Your task to perform on an android device: turn on location history Image 0: 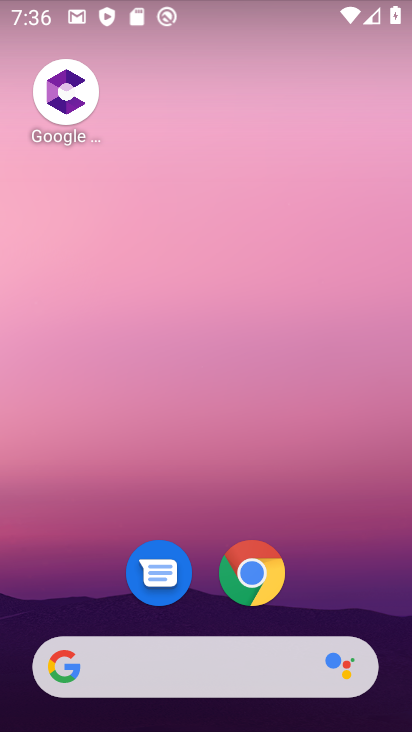
Step 0: drag from (225, 481) to (251, 1)
Your task to perform on an android device: turn on location history Image 1: 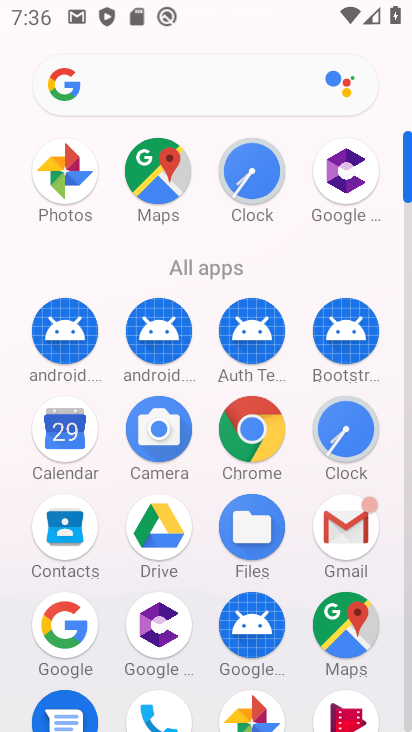
Step 1: drag from (198, 399) to (226, 18)
Your task to perform on an android device: turn on location history Image 2: 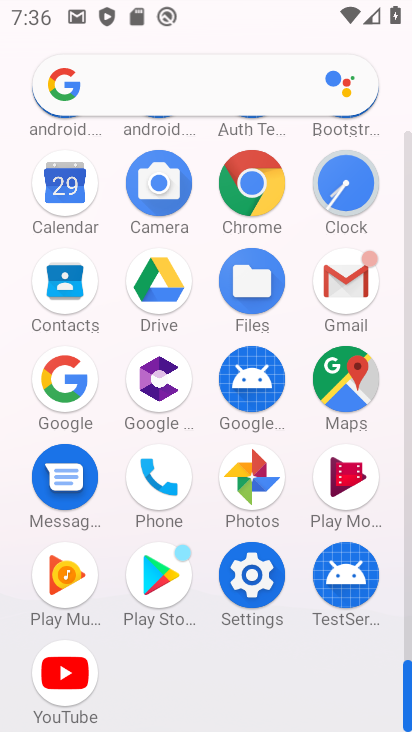
Step 2: click (245, 579)
Your task to perform on an android device: turn on location history Image 3: 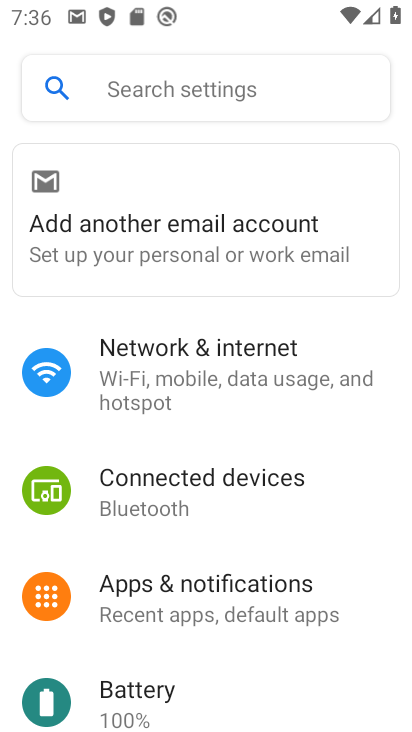
Step 3: drag from (222, 662) to (255, 89)
Your task to perform on an android device: turn on location history Image 4: 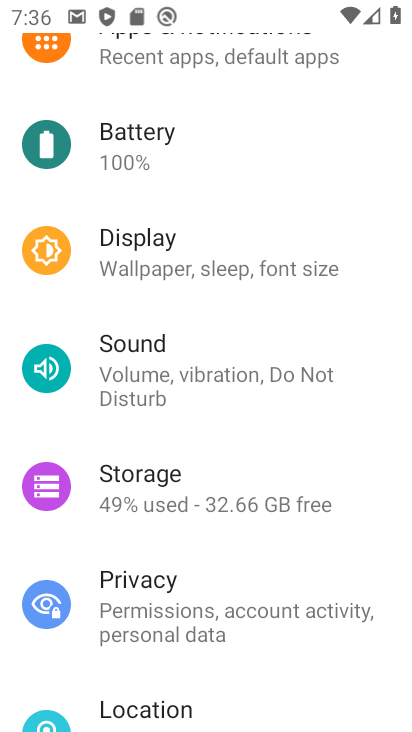
Step 4: click (190, 714)
Your task to perform on an android device: turn on location history Image 5: 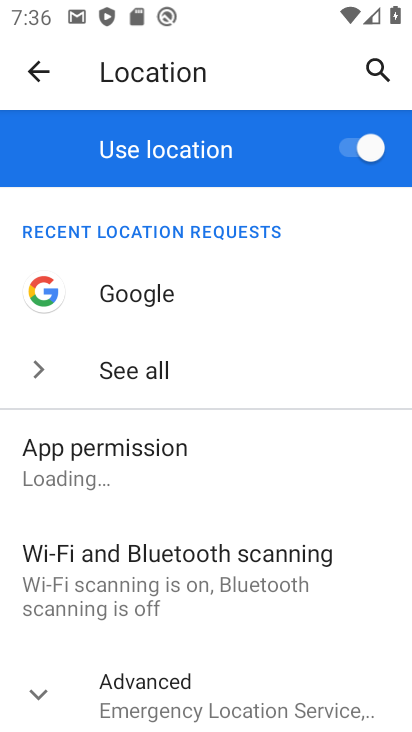
Step 5: drag from (254, 473) to (281, 129)
Your task to perform on an android device: turn on location history Image 6: 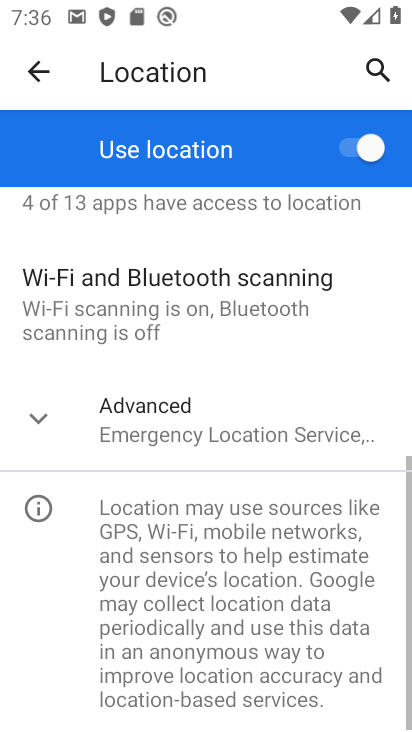
Step 6: click (37, 416)
Your task to perform on an android device: turn on location history Image 7: 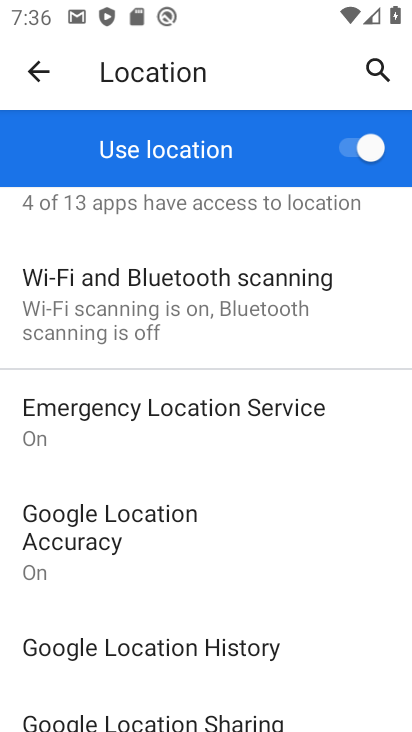
Step 7: click (175, 644)
Your task to perform on an android device: turn on location history Image 8: 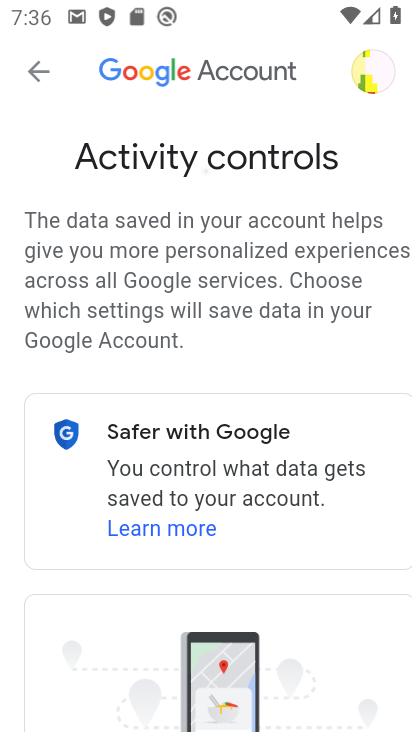
Step 8: task complete